Your task to perform on an android device: Check the weather Image 0: 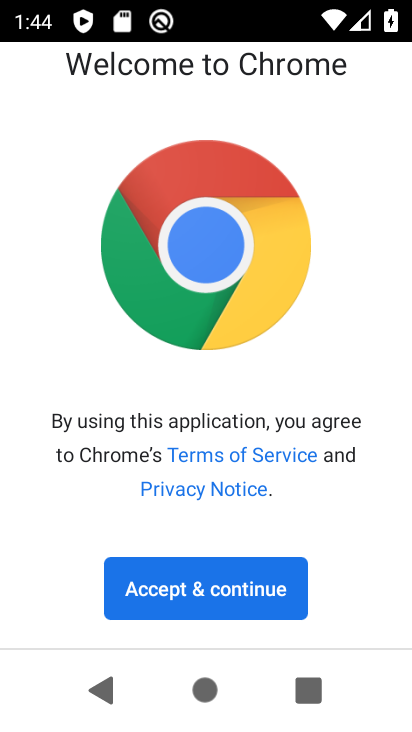
Step 0: click (237, 591)
Your task to perform on an android device: Check the weather Image 1: 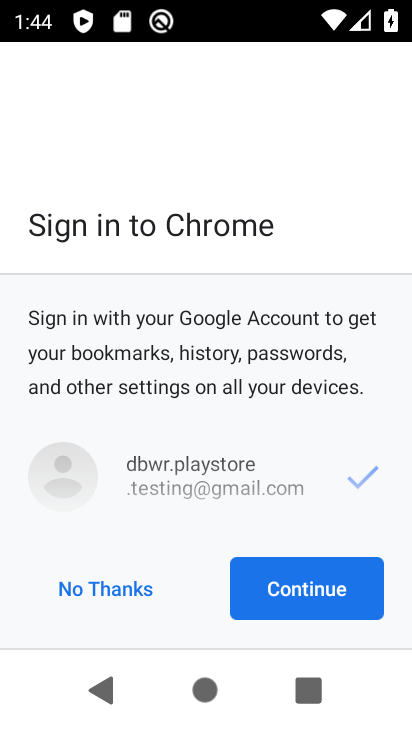
Step 1: press home button
Your task to perform on an android device: Check the weather Image 2: 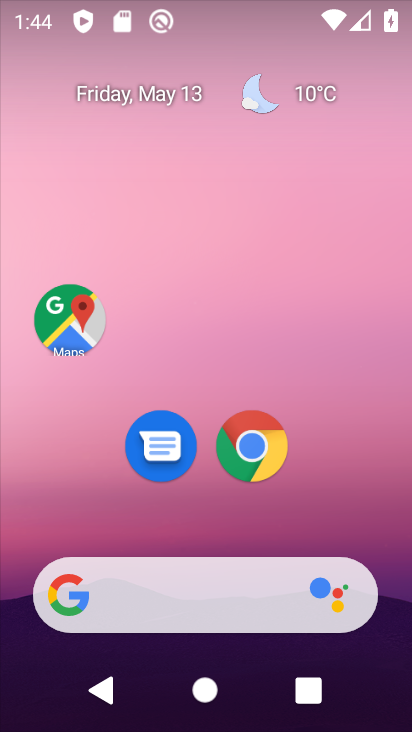
Step 2: click (291, 85)
Your task to perform on an android device: Check the weather Image 3: 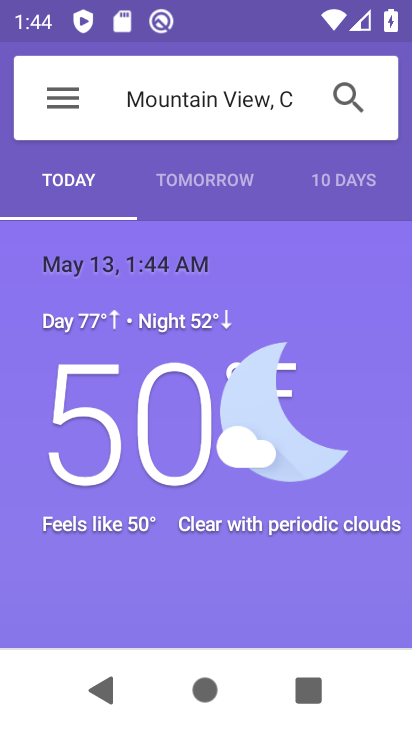
Step 3: task complete